Your task to perform on an android device: create a new album in the google photos Image 0: 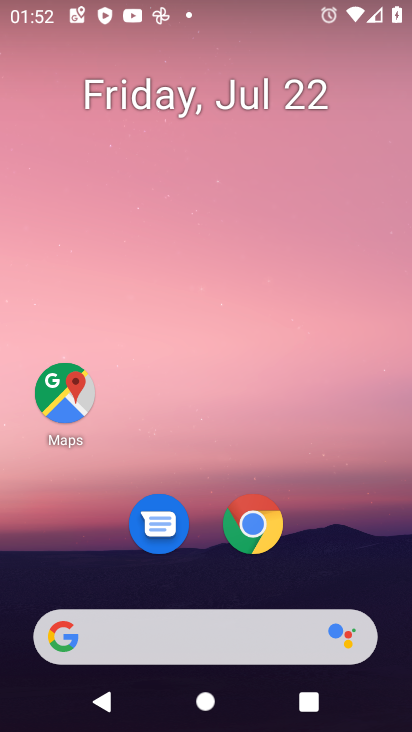
Step 0: press home button
Your task to perform on an android device: create a new album in the google photos Image 1: 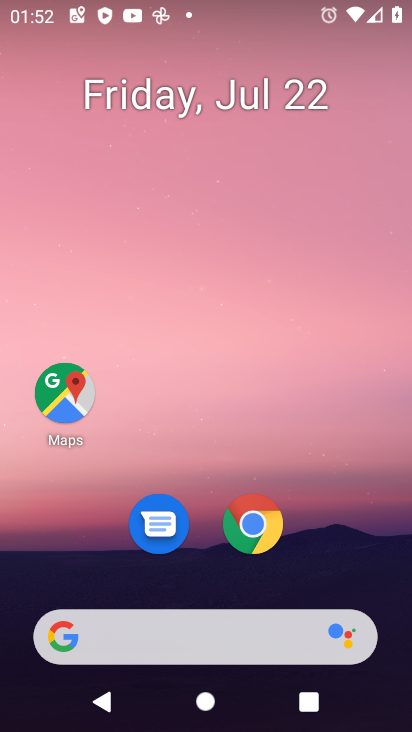
Step 1: drag from (246, 206) to (268, 88)
Your task to perform on an android device: create a new album in the google photos Image 2: 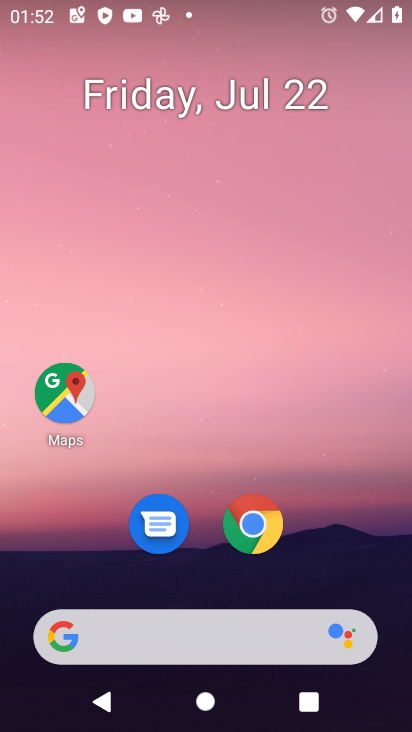
Step 2: drag from (190, 640) to (298, 172)
Your task to perform on an android device: create a new album in the google photos Image 3: 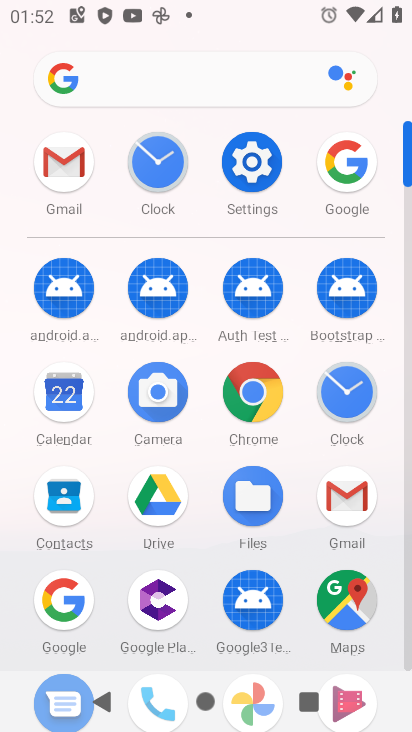
Step 3: drag from (213, 503) to (279, 145)
Your task to perform on an android device: create a new album in the google photos Image 4: 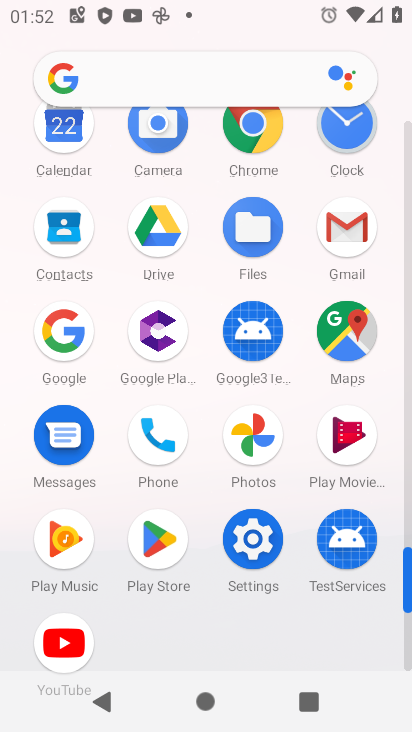
Step 4: click (251, 435)
Your task to perform on an android device: create a new album in the google photos Image 5: 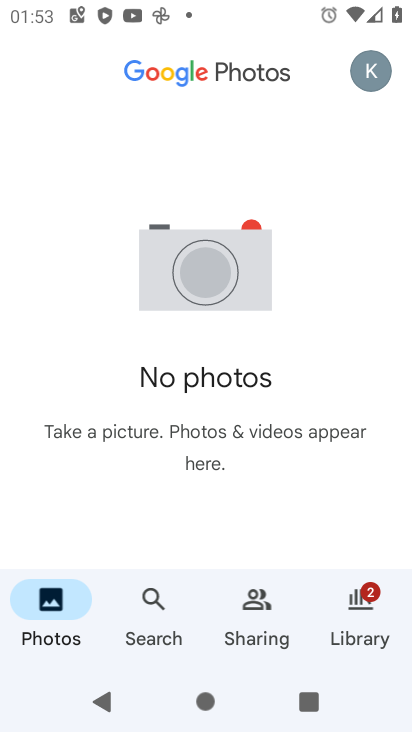
Step 5: click (349, 608)
Your task to perform on an android device: create a new album in the google photos Image 6: 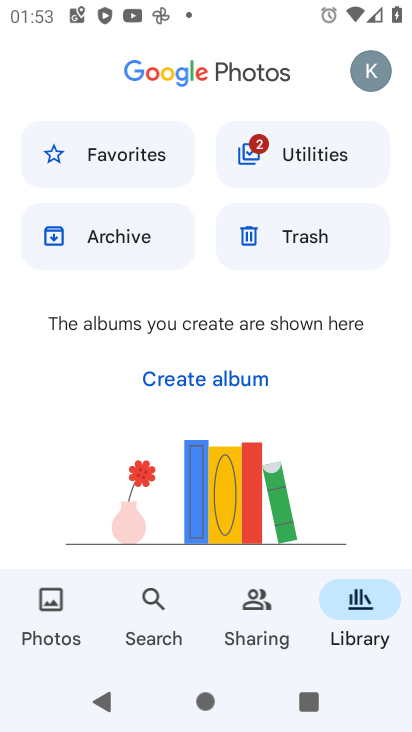
Step 6: task complete